Your task to perform on an android device: change the clock display to show seconds Image 0: 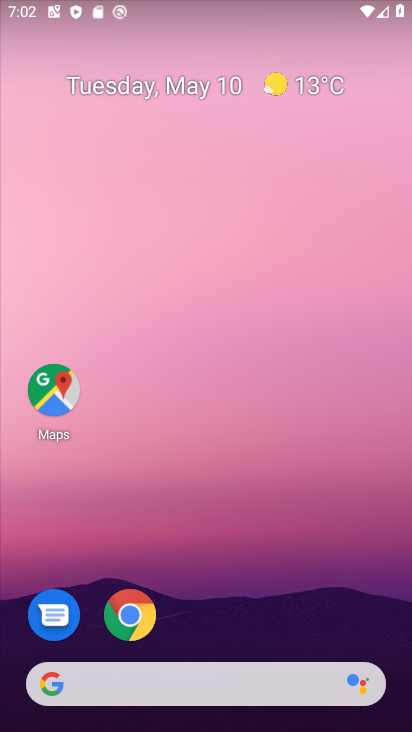
Step 0: drag from (236, 535) to (323, 95)
Your task to perform on an android device: change the clock display to show seconds Image 1: 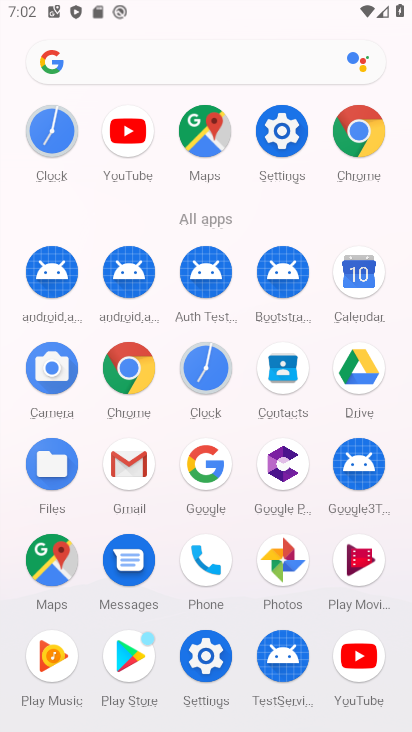
Step 1: click (43, 142)
Your task to perform on an android device: change the clock display to show seconds Image 2: 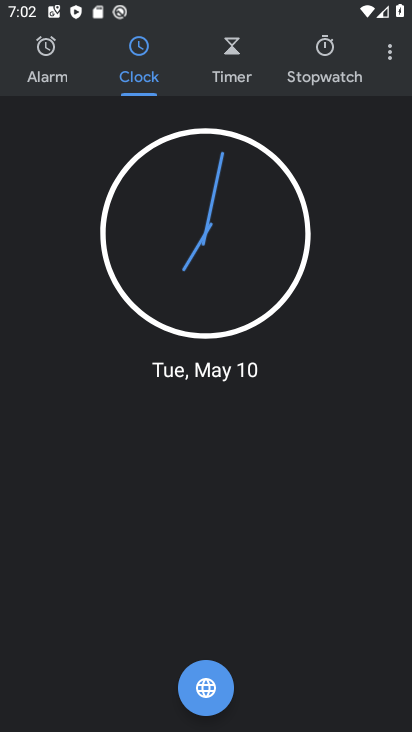
Step 2: click (398, 65)
Your task to perform on an android device: change the clock display to show seconds Image 3: 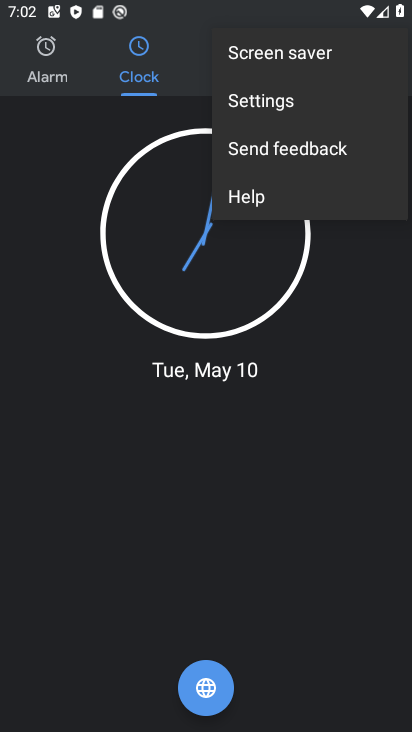
Step 3: click (249, 103)
Your task to perform on an android device: change the clock display to show seconds Image 4: 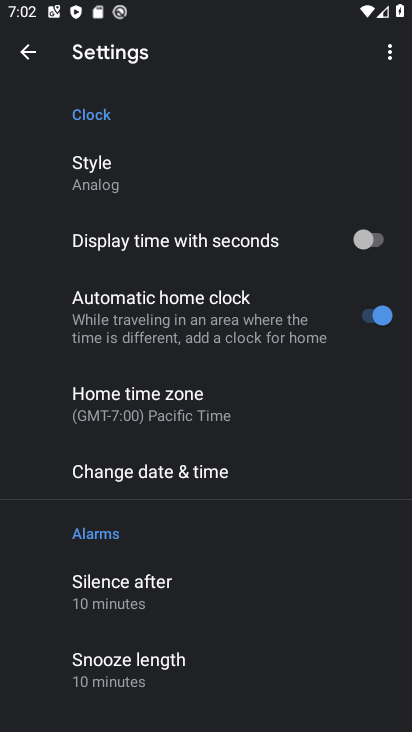
Step 4: click (357, 245)
Your task to perform on an android device: change the clock display to show seconds Image 5: 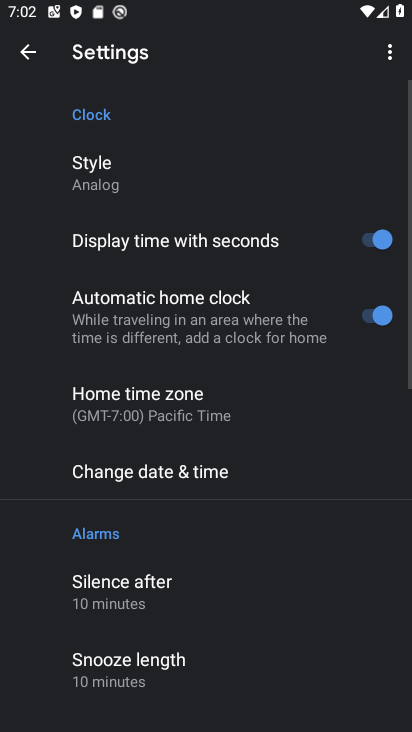
Step 5: task complete